Your task to perform on an android device: Open the calendar app, open the side menu, and click the "Day" option Image 0: 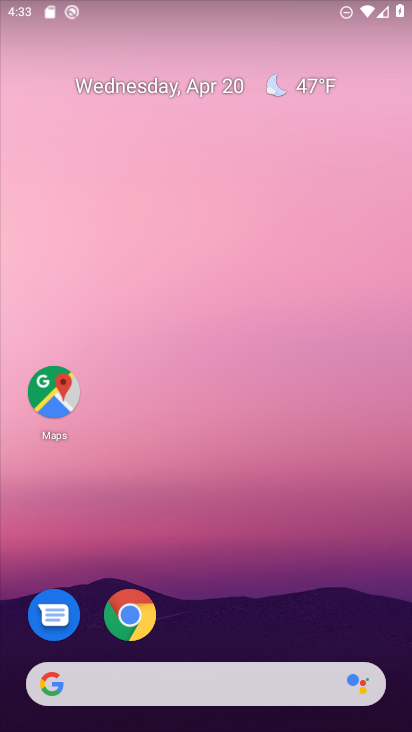
Step 0: drag from (271, 605) to (291, 0)
Your task to perform on an android device: Open the calendar app, open the side menu, and click the "Day" option Image 1: 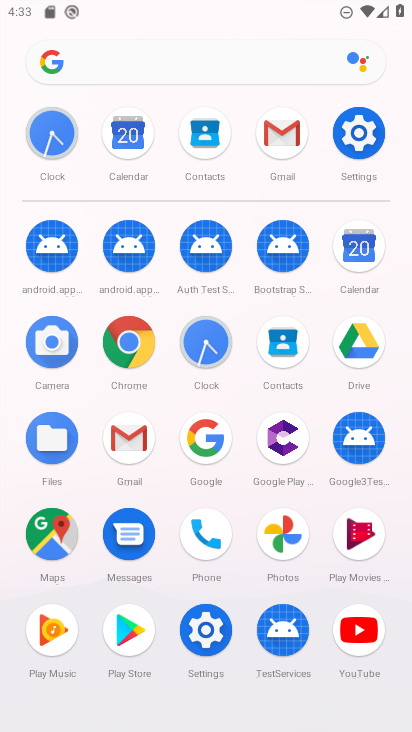
Step 1: click (345, 261)
Your task to perform on an android device: Open the calendar app, open the side menu, and click the "Day" option Image 2: 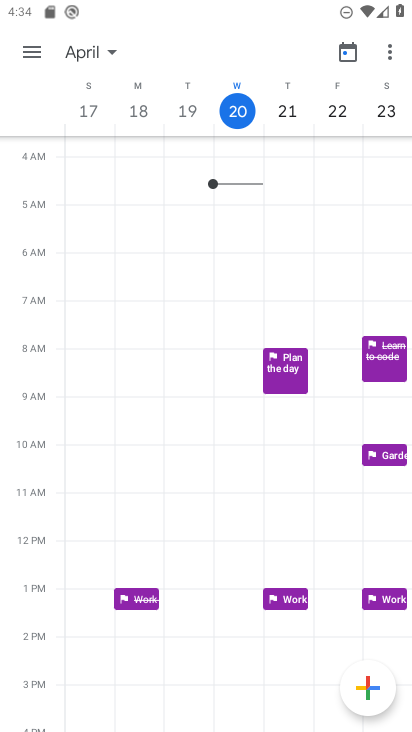
Step 2: click (33, 51)
Your task to perform on an android device: Open the calendar app, open the side menu, and click the "Day" option Image 3: 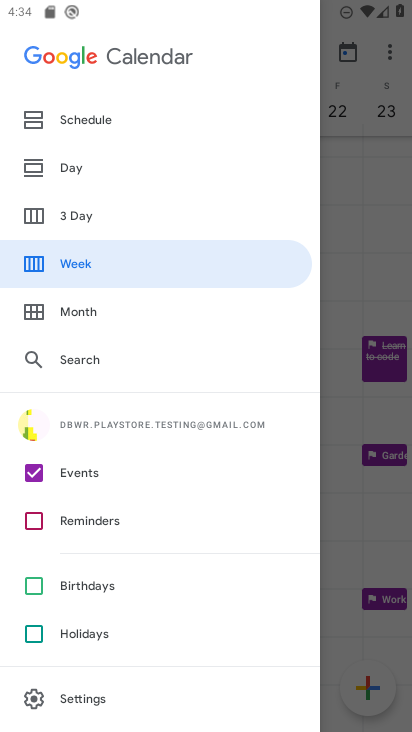
Step 3: click (70, 172)
Your task to perform on an android device: Open the calendar app, open the side menu, and click the "Day" option Image 4: 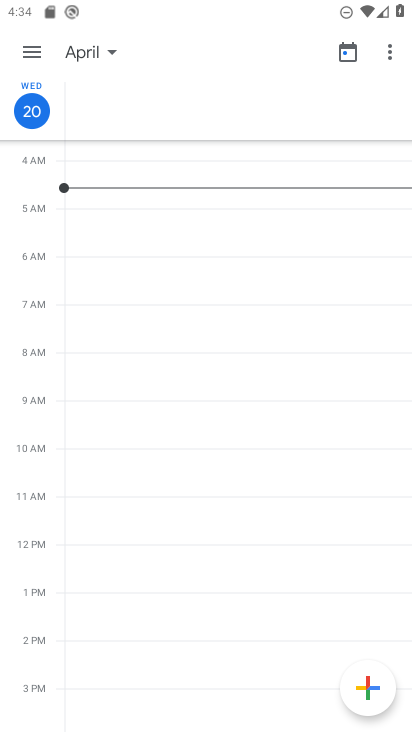
Step 4: task complete